Your task to perform on an android device: Open display settings Image 0: 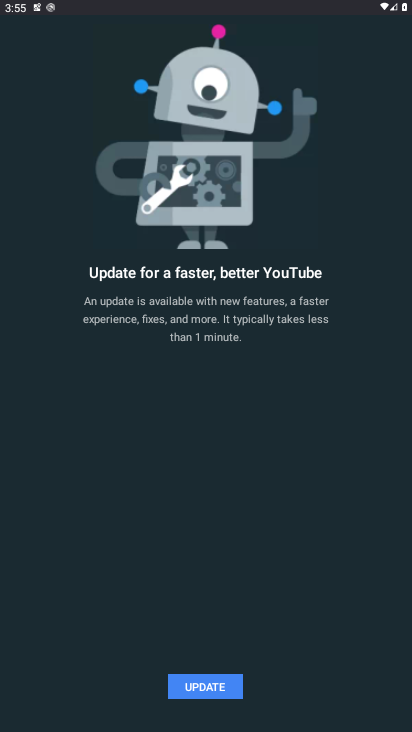
Step 0: press home button
Your task to perform on an android device: Open display settings Image 1: 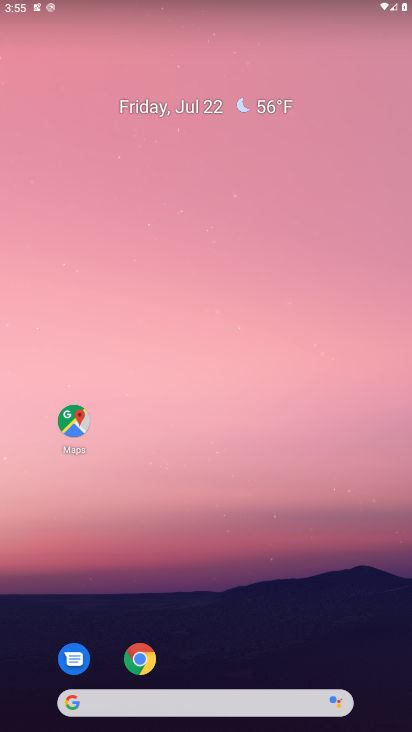
Step 1: drag from (224, 668) to (221, 327)
Your task to perform on an android device: Open display settings Image 2: 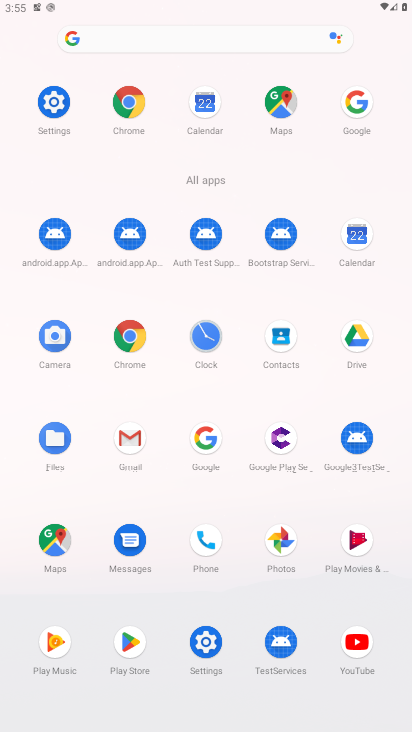
Step 2: click (53, 107)
Your task to perform on an android device: Open display settings Image 3: 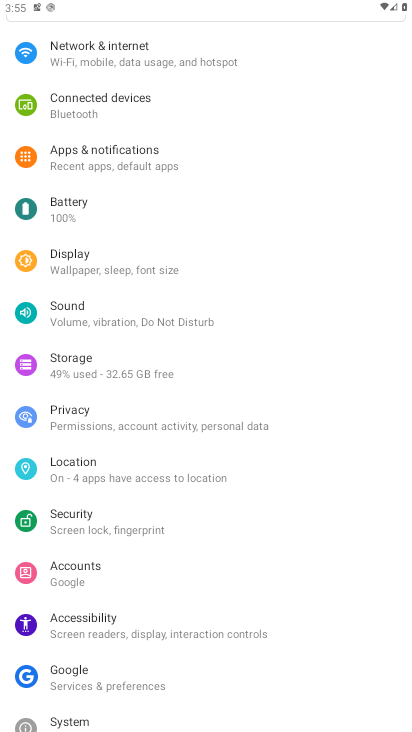
Step 3: click (83, 262)
Your task to perform on an android device: Open display settings Image 4: 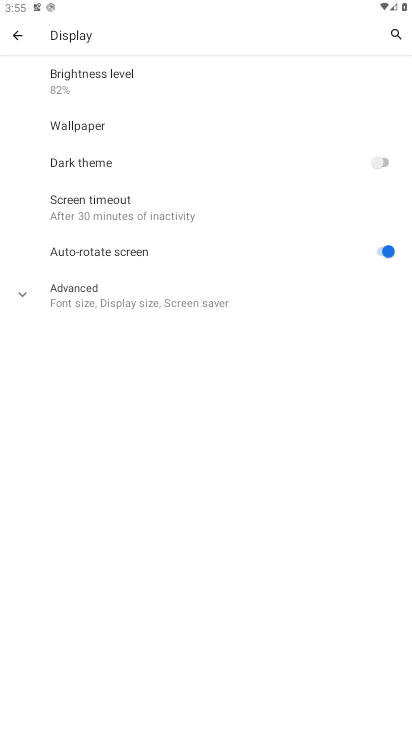
Step 4: click (93, 302)
Your task to perform on an android device: Open display settings Image 5: 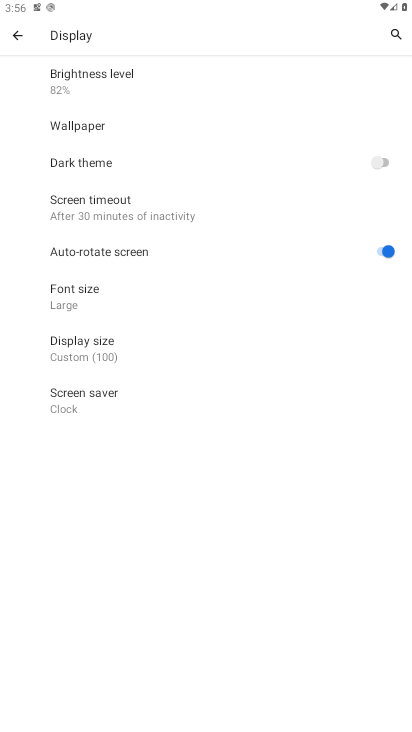
Step 5: task complete